Your task to perform on an android device: Set the phone to "Do not disturb". Image 0: 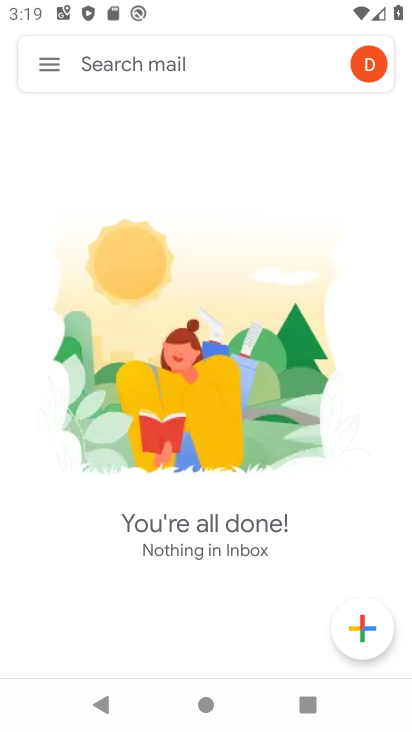
Step 0: press home button
Your task to perform on an android device: Set the phone to "Do not disturb". Image 1: 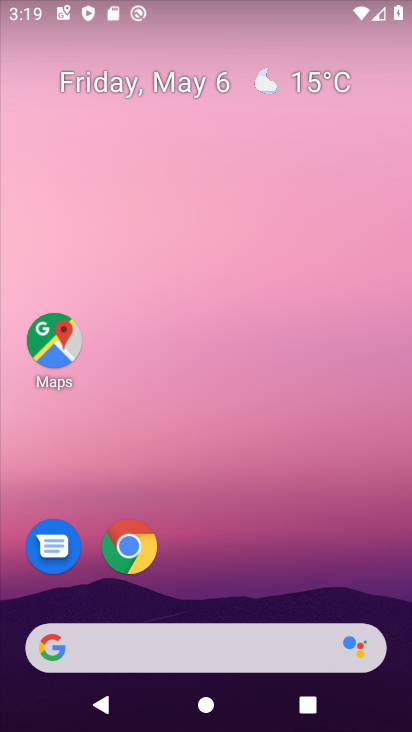
Step 1: drag from (218, 622) to (192, 324)
Your task to perform on an android device: Set the phone to "Do not disturb". Image 2: 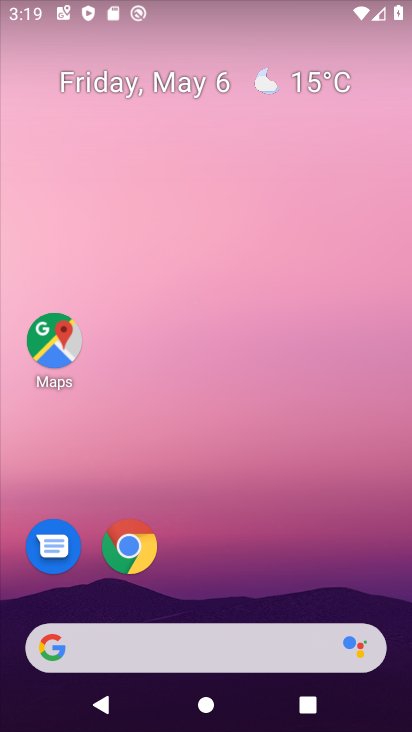
Step 2: drag from (253, 617) to (249, 220)
Your task to perform on an android device: Set the phone to "Do not disturb". Image 3: 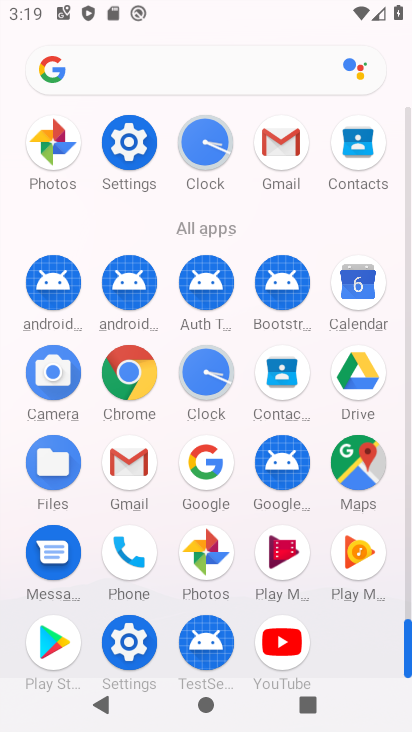
Step 3: click (127, 133)
Your task to perform on an android device: Set the phone to "Do not disturb". Image 4: 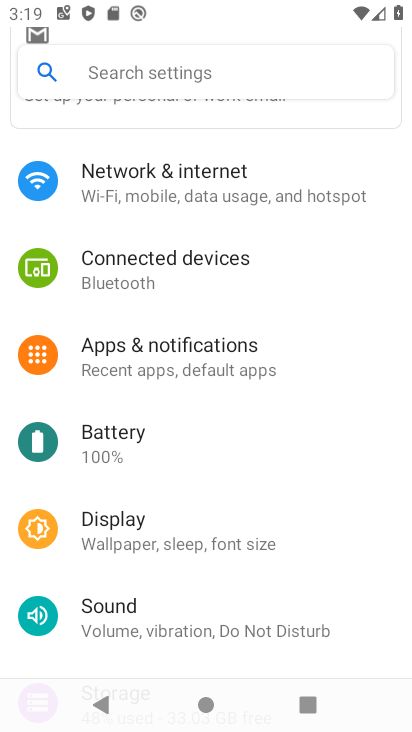
Step 4: click (158, 624)
Your task to perform on an android device: Set the phone to "Do not disturb". Image 5: 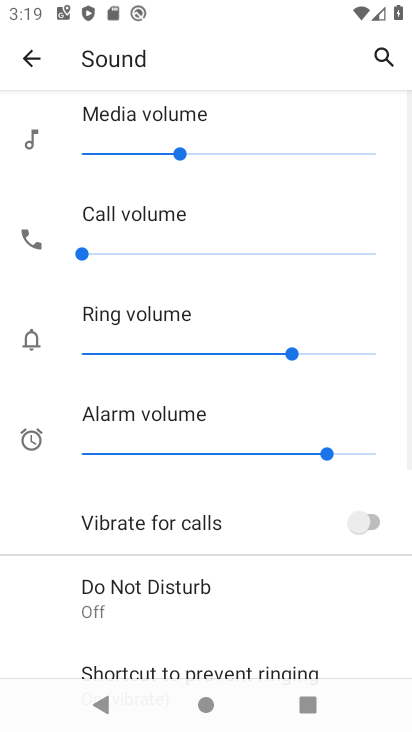
Step 5: drag from (155, 640) to (150, 263)
Your task to perform on an android device: Set the phone to "Do not disturb". Image 6: 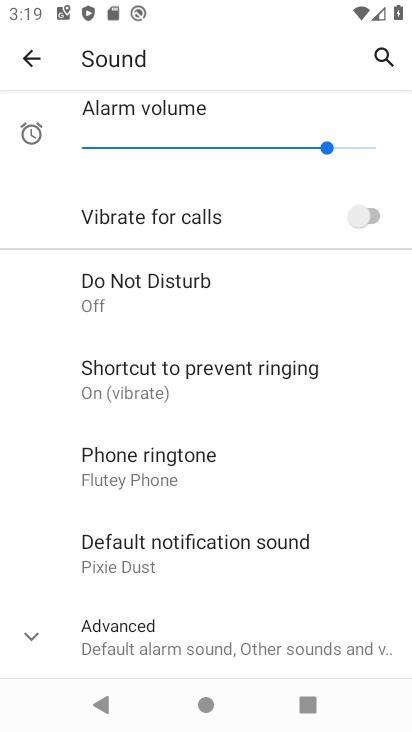
Step 6: drag from (157, 594) to (195, 372)
Your task to perform on an android device: Set the phone to "Do not disturb". Image 7: 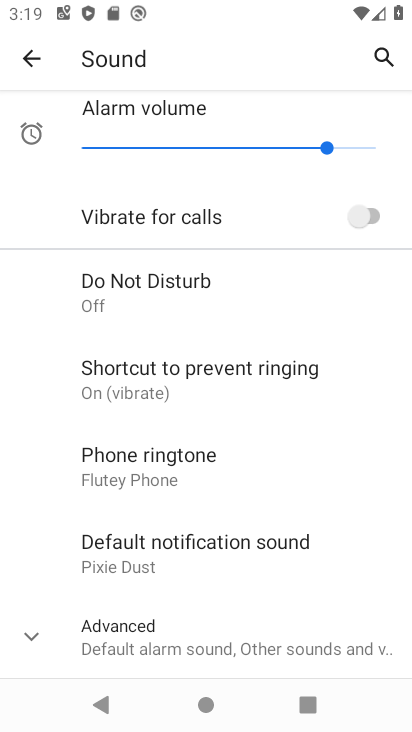
Step 7: click (154, 292)
Your task to perform on an android device: Set the phone to "Do not disturb". Image 8: 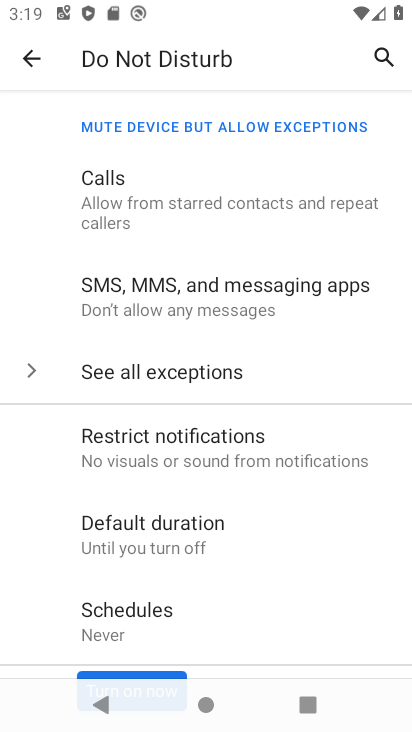
Step 8: drag from (158, 631) to (180, 345)
Your task to perform on an android device: Set the phone to "Do not disturb". Image 9: 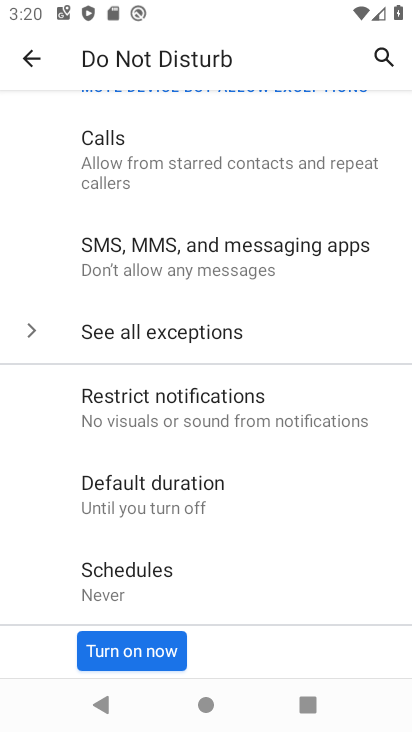
Step 9: click (146, 649)
Your task to perform on an android device: Set the phone to "Do not disturb". Image 10: 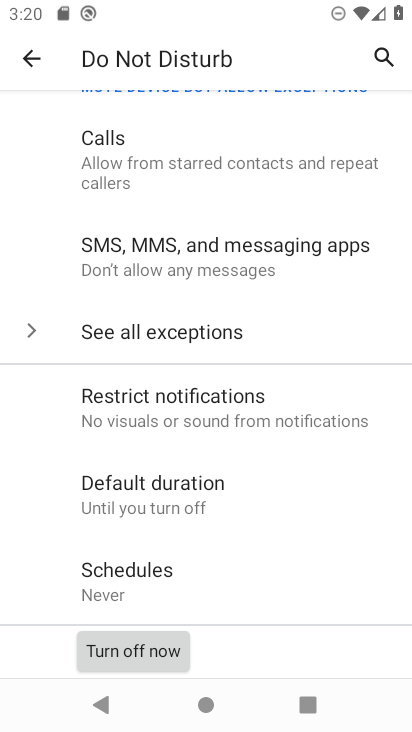
Step 10: click (150, 657)
Your task to perform on an android device: Set the phone to "Do not disturb". Image 11: 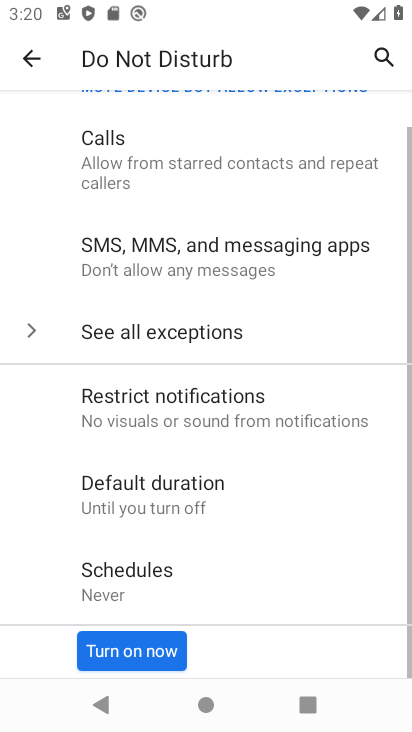
Step 11: click (150, 657)
Your task to perform on an android device: Set the phone to "Do not disturb". Image 12: 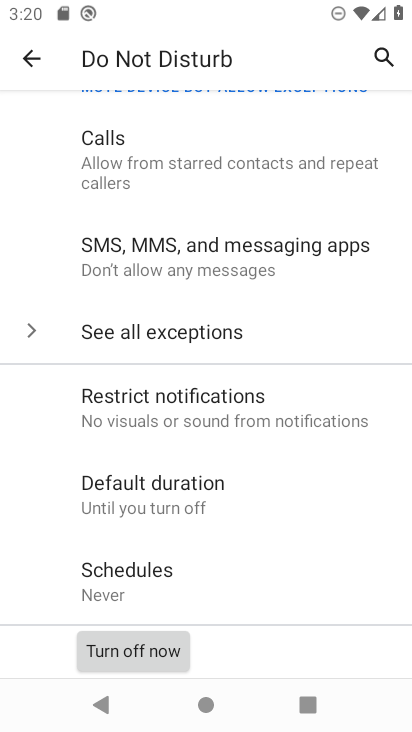
Step 12: task complete